Your task to perform on an android device: Go to Google Image 0: 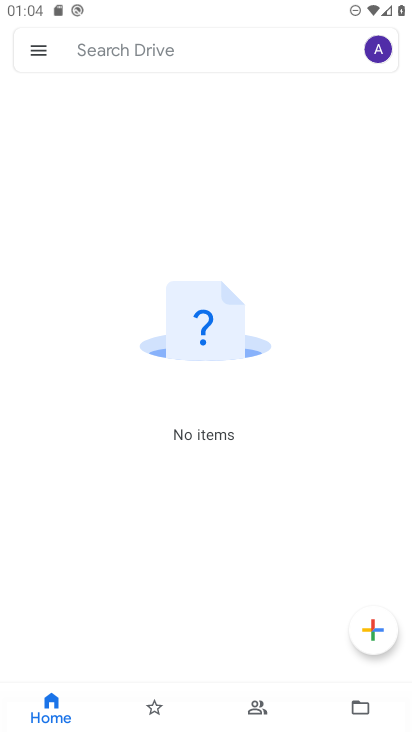
Step 0: press home button
Your task to perform on an android device: Go to Google Image 1: 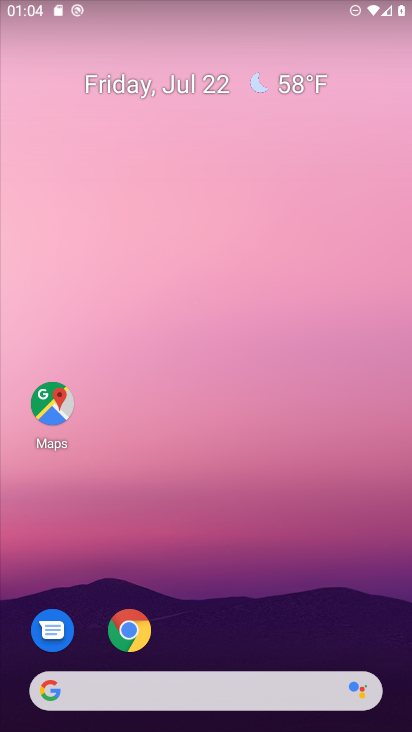
Step 1: drag from (251, 644) to (271, 41)
Your task to perform on an android device: Go to Google Image 2: 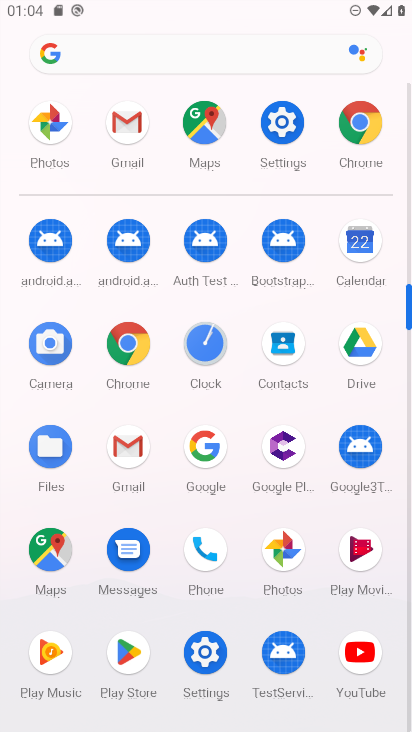
Step 2: click (202, 440)
Your task to perform on an android device: Go to Google Image 3: 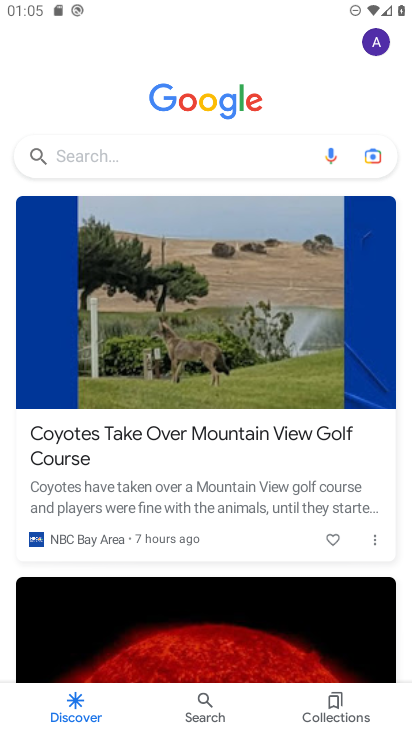
Step 3: task complete